Your task to perform on an android device: open the mobile data screen to see how much data has been used Image 0: 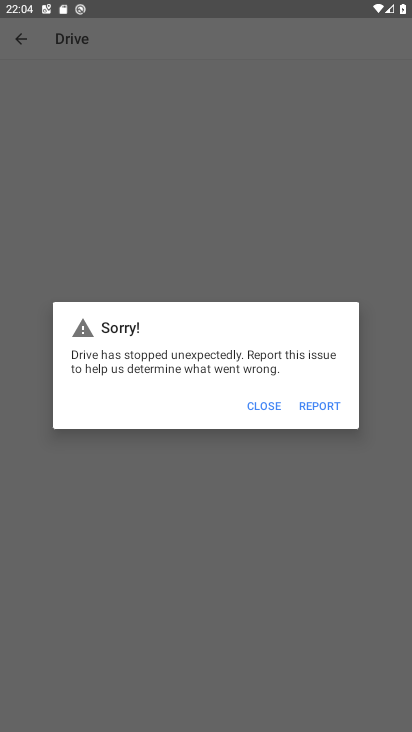
Step 0: press home button
Your task to perform on an android device: open the mobile data screen to see how much data has been used Image 1: 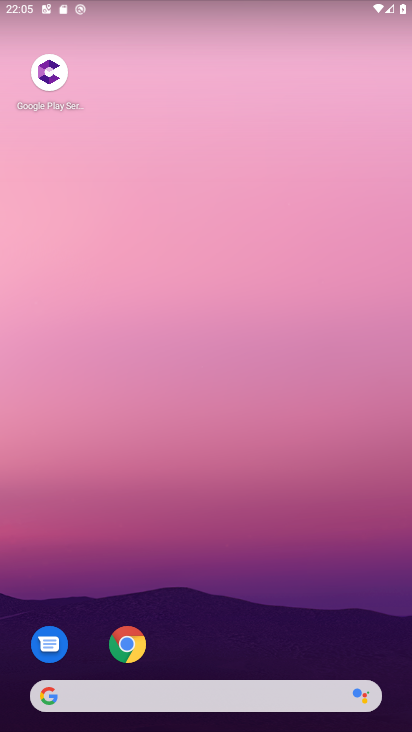
Step 1: drag from (220, 632) to (246, 5)
Your task to perform on an android device: open the mobile data screen to see how much data has been used Image 2: 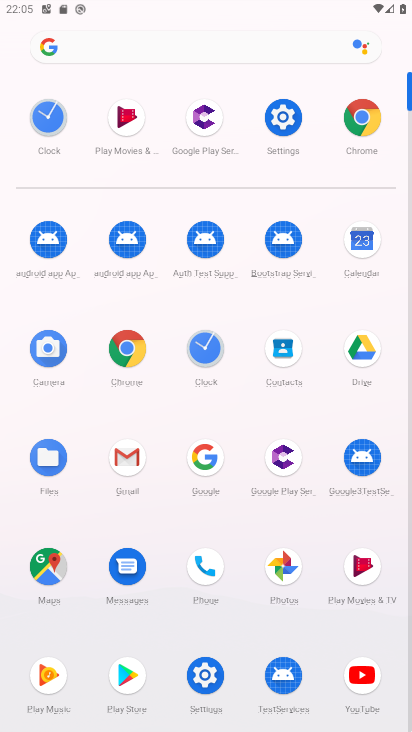
Step 2: click (284, 114)
Your task to perform on an android device: open the mobile data screen to see how much data has been used Image 3: 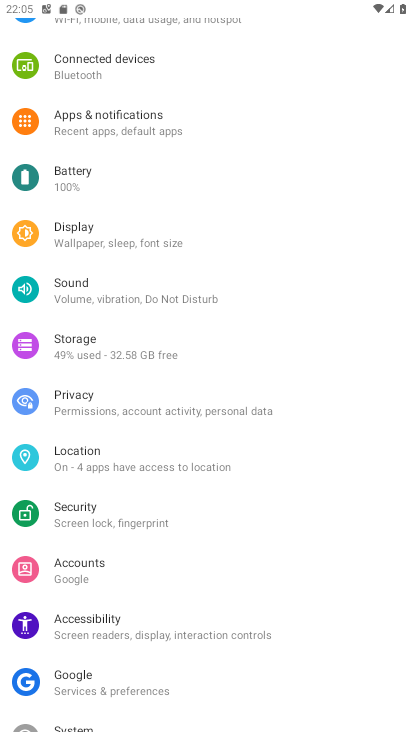
Step 3: drag from (118, 107) to (128, 565)
Your task to perform on an android device: open the mobile data screen to see how much data has been used Image 4: 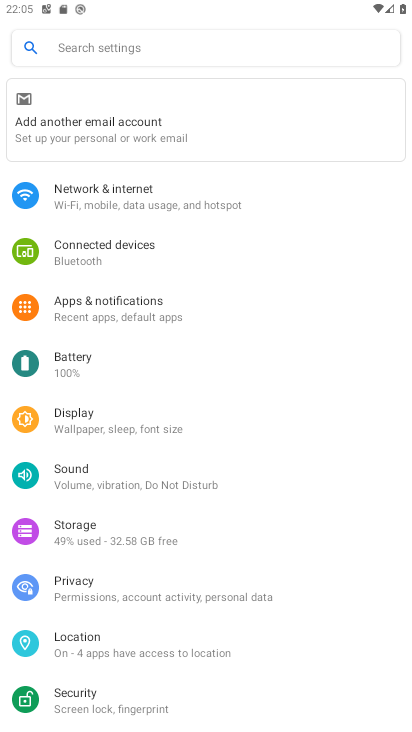
Step 4: click (114, 194)
Your task to perform on an android device: open the mobile data screen to see how much data has been used Image 5: 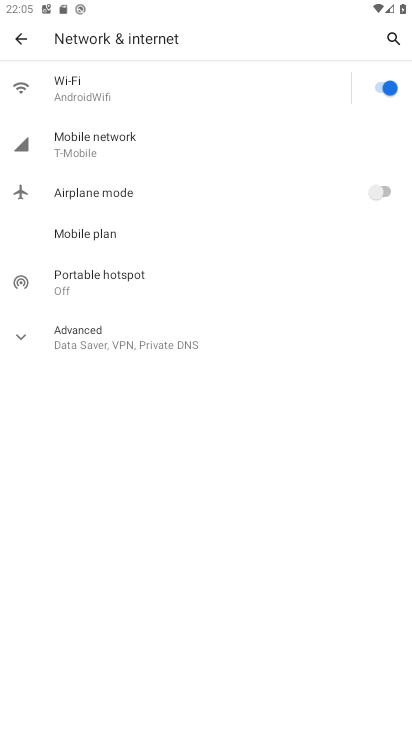
Step 5: click (107, 140)
Your task to perform on an android device: open the mobile data screen to see how much data has been used Image 6: 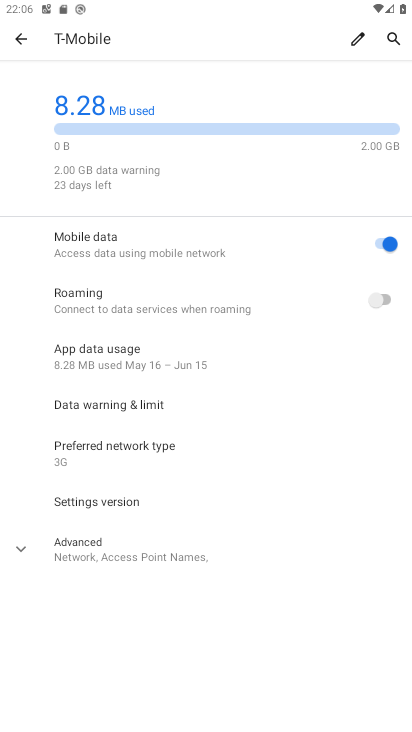
Step 6: click (131, 353)
Your task to perform on an android device: open the mobile data screen to see how much data has been used Image 7: 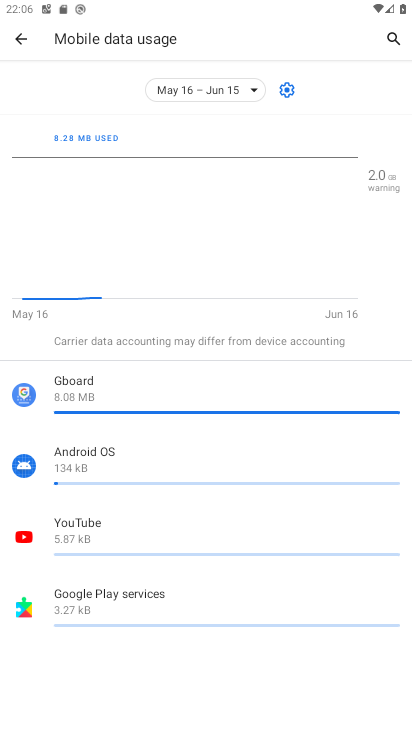
Step 7: task complete